Your task to perform on an android device: Go to Yahoo.com Image 0: 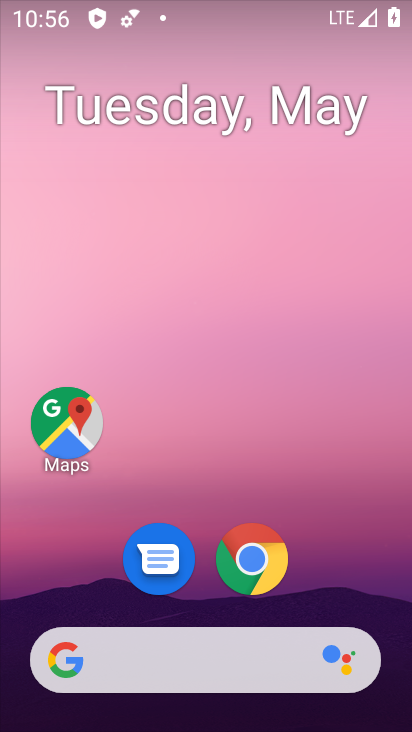
Step 0: drag from (365, 560) to (341, 94)
Your task to perform on an android device: Go to Yahoo.com Image 1: 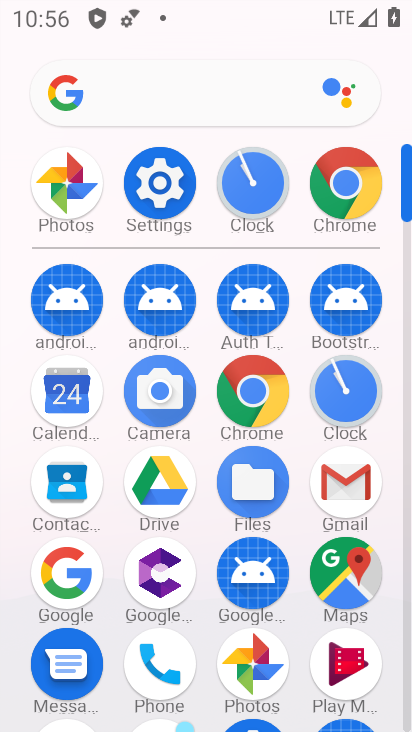
Step 1: click (246, 402)
Your task to perform on an android device: Go to Yahoo.com Image 2: 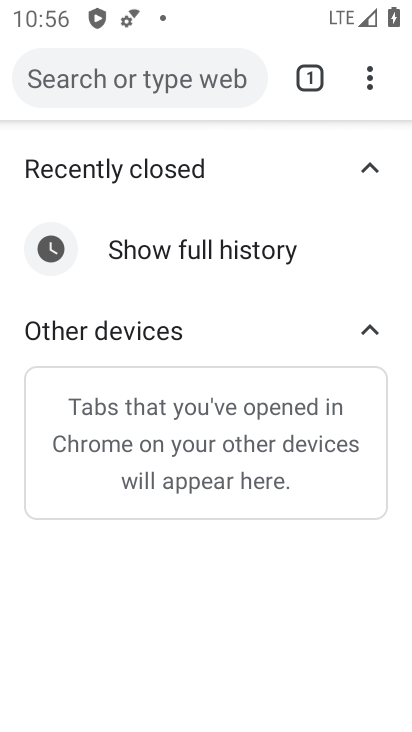
Step 2: click (212, 86)
Your task to perform on an android device: Go to Yahoo.com Image 3: 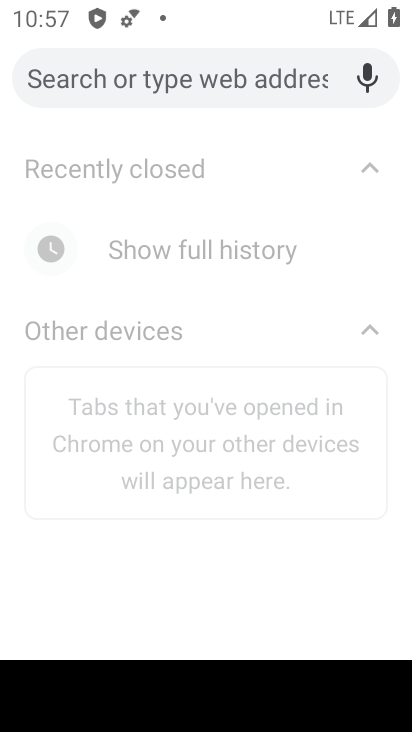
Step 3: type "yahoo.com"
Your task to perform on an android device: Go to Yahoo.com Image 4: 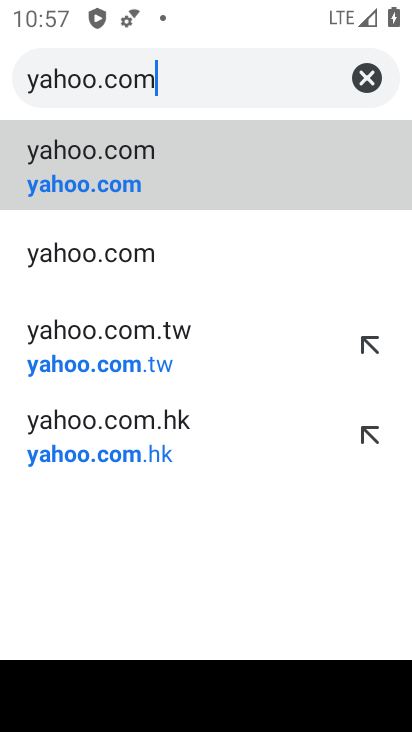
Step 4: click (198, 186)
Your task to perform on an android device: Go to Yahoo.com Image 5: 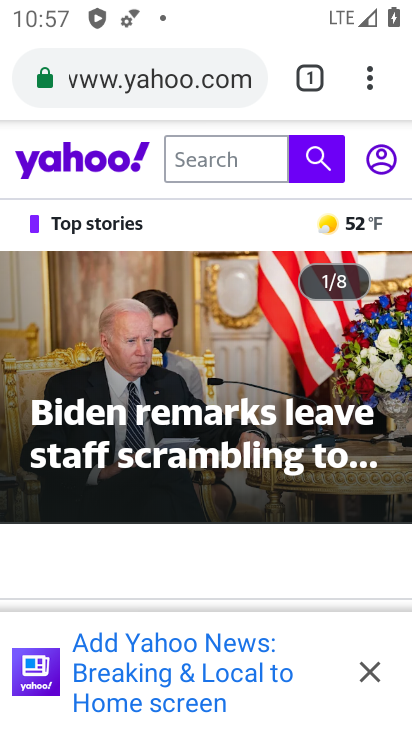
Step 5: task complete